Your task to perform on an android device: Go to Yahoo.com Image 0: 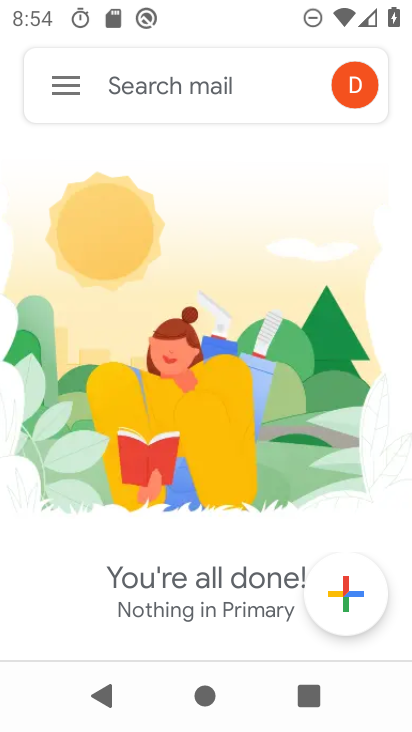
Step 0: press home button
Your task to perform on an android device: Go to Yahoo.com Image 1: 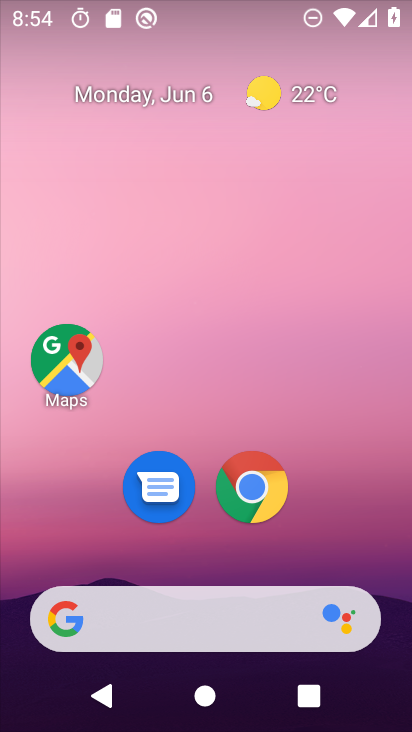
Step 1: drag from (395, 616) to (302, 45)
Your task to perform on an android device: Go to Yahoo.com Image 2: 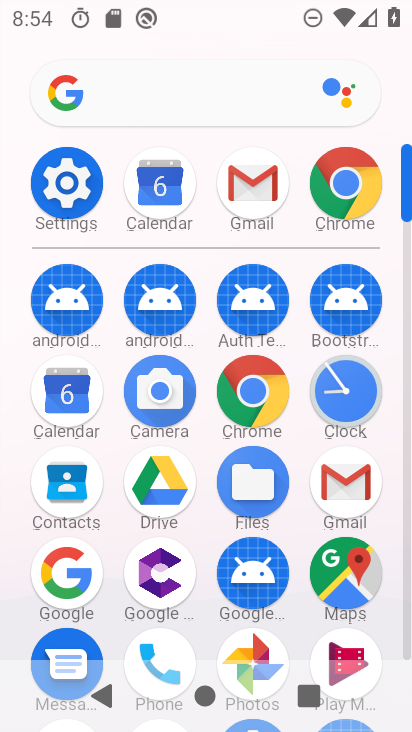
Step 2: click (44, 571)
Your task to perform on an android device: Go to Yahoo.com Image 3: 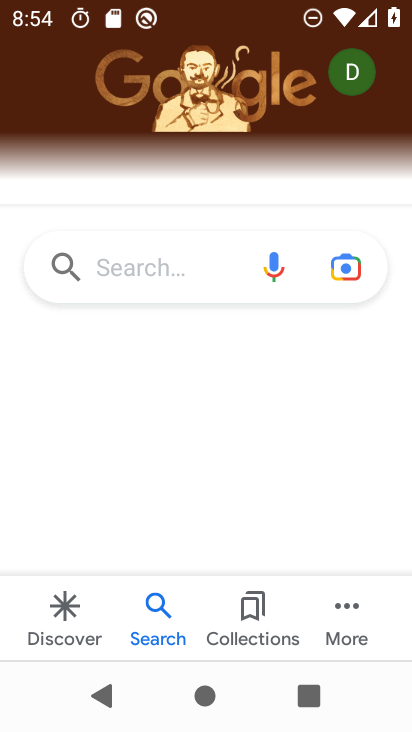
Step 3: click (141, 274)
Your task to perform on an android device: Go to Yahoo.com Image 4: 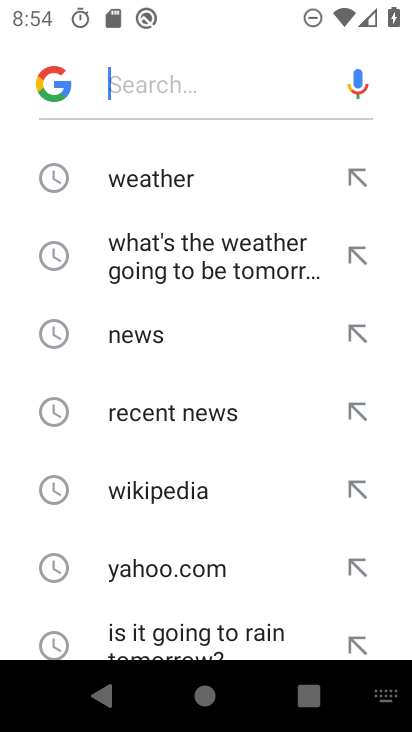
Step 4: click (192, 581)
Your task to perform on an android device: Go to Yahoo.com Image 5: 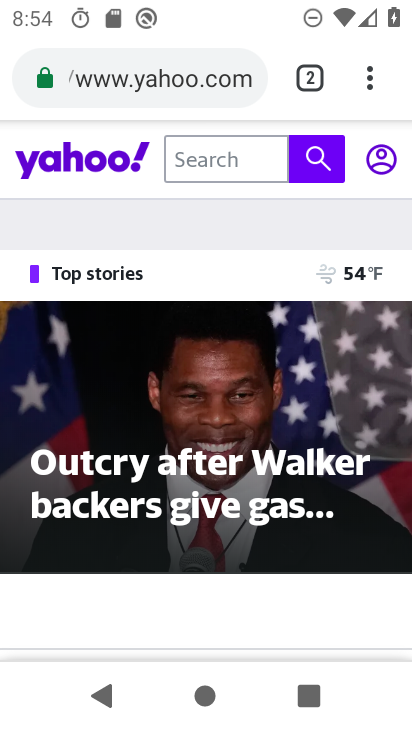
Step 5: task complete